Your task to perform on an android device: Show the shopping cart on walmart.com. Image 0: 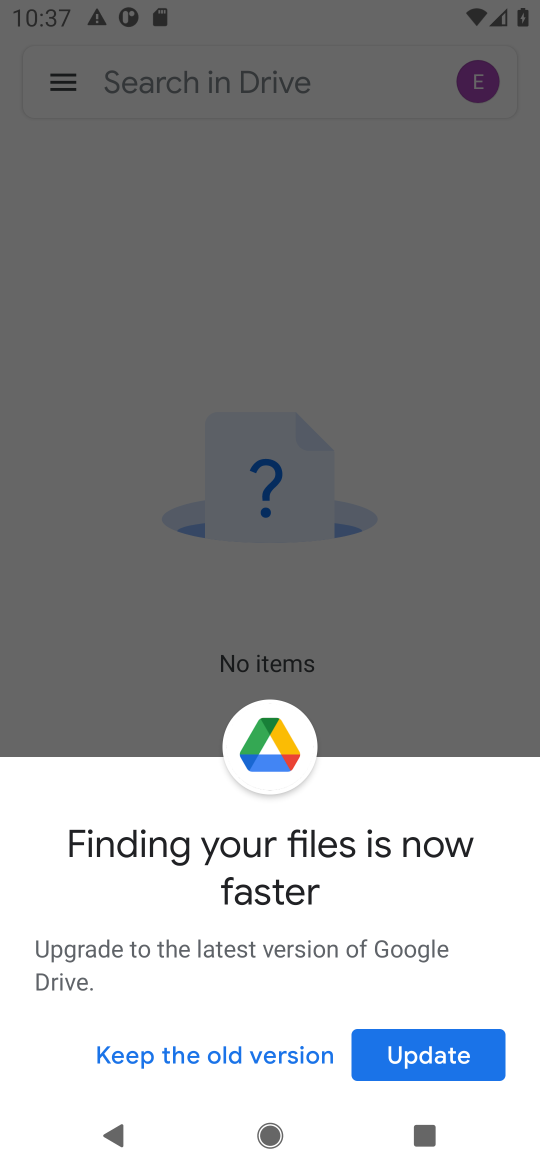
Step 0: press home button
Your task to perform on an android device: Show the shopping cart on walmart.com. Image 1: 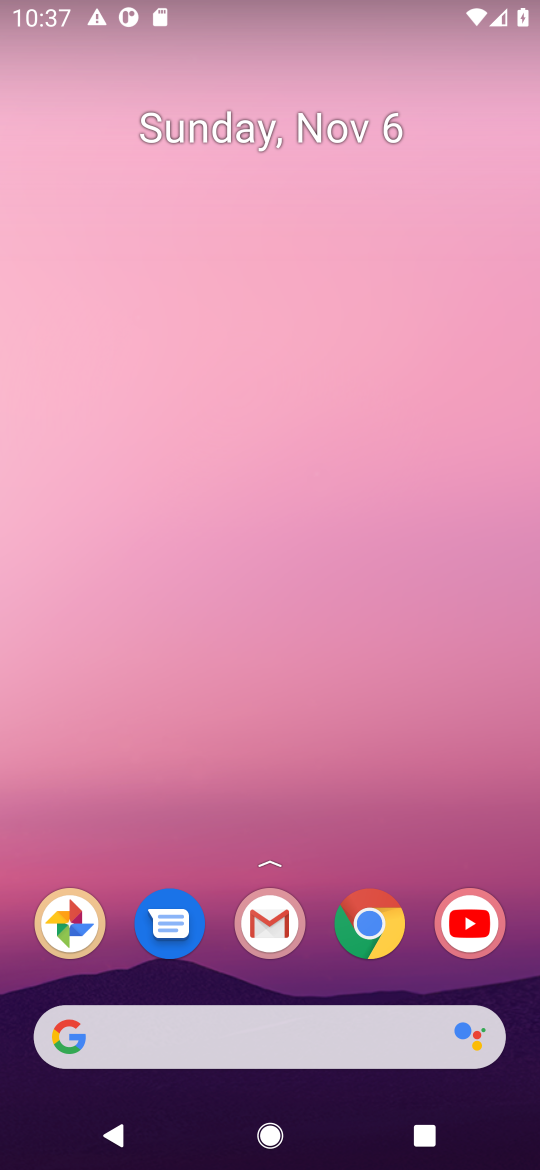
Step 1: click (355, 954)
Your task to perform on an android device: Show the shopping cart on walmart.com. Image 2: 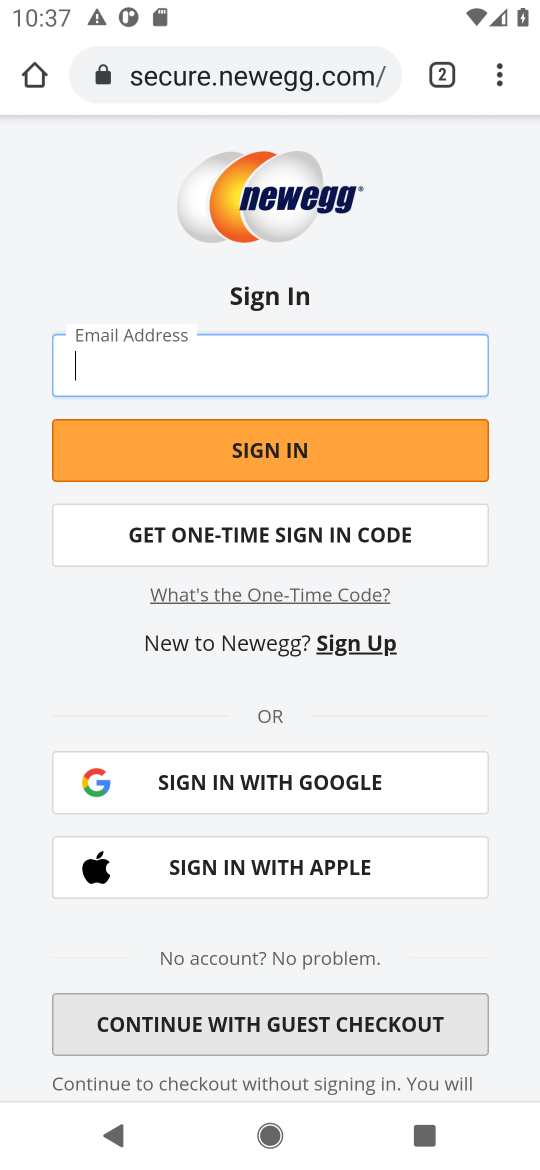
Step 2: click (213, 83)
Your task to perform on an android device: Show the shopping cart on walmart.com. Image 3: 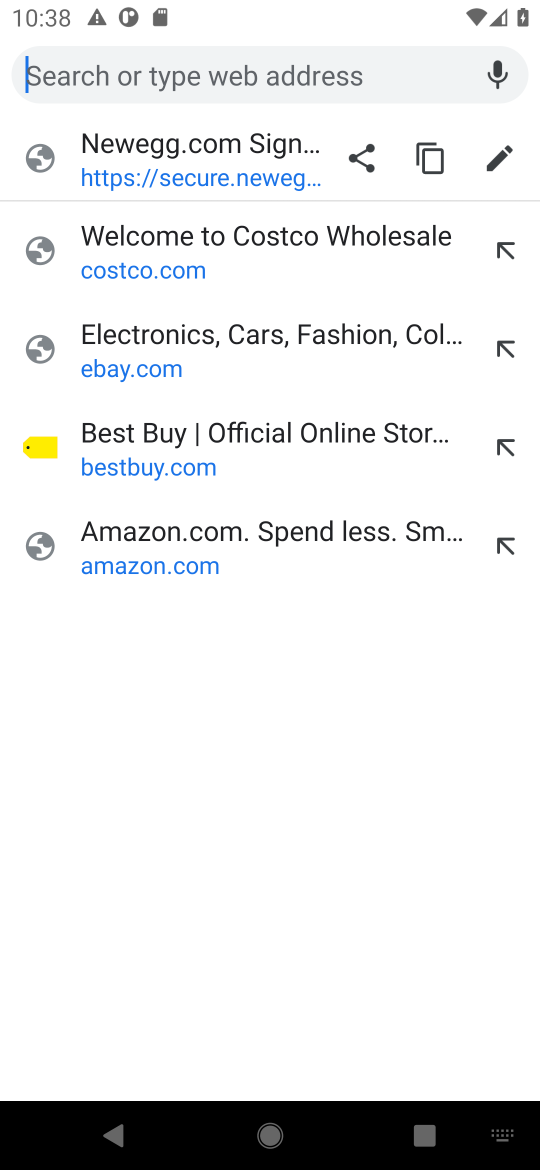
Step 3: type "walmart.com"
Your task to perform on an android device: Show the shopping cart on walmart.com. Image 4: 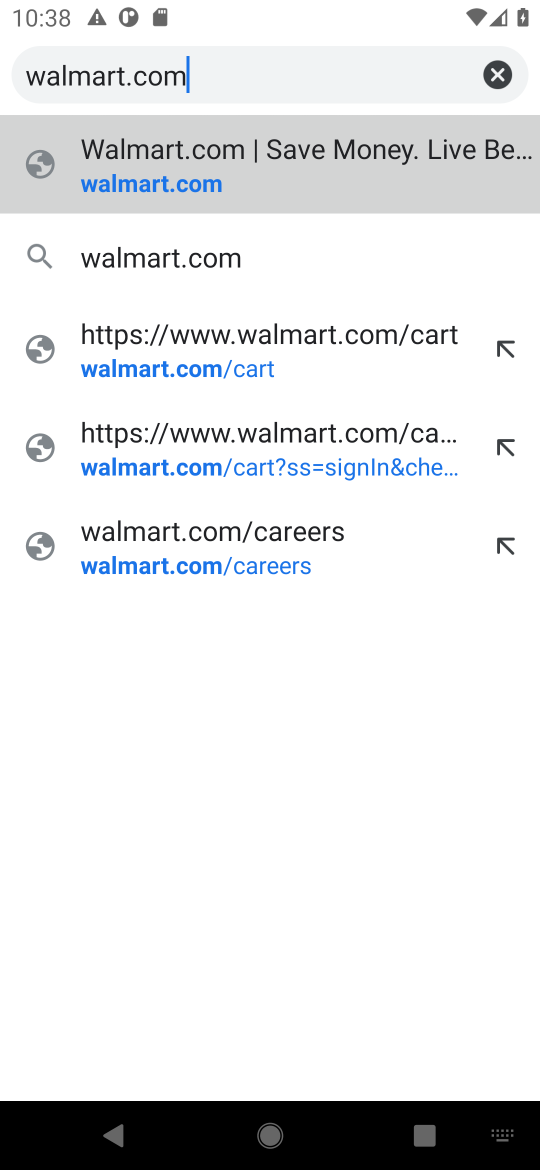
Step 4: click (151, 188)
Your task to perform on an android device: Show the shopping cart on walmart.com. Image 5: 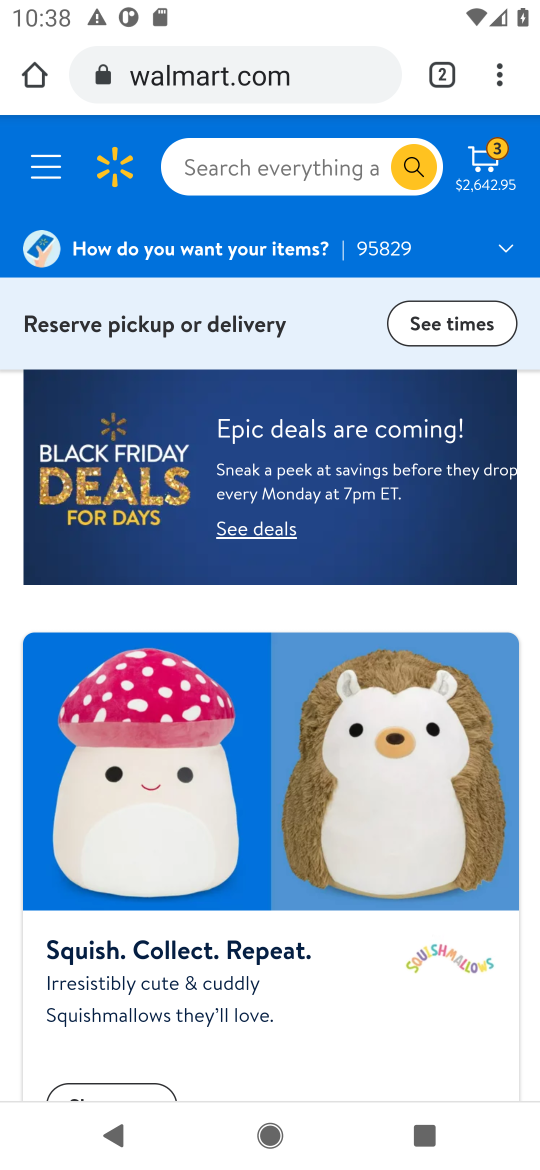
Step 5: click (483, 154)
Your task to perform on an android device: Show the shopping cart on walmart.com. Image 6: 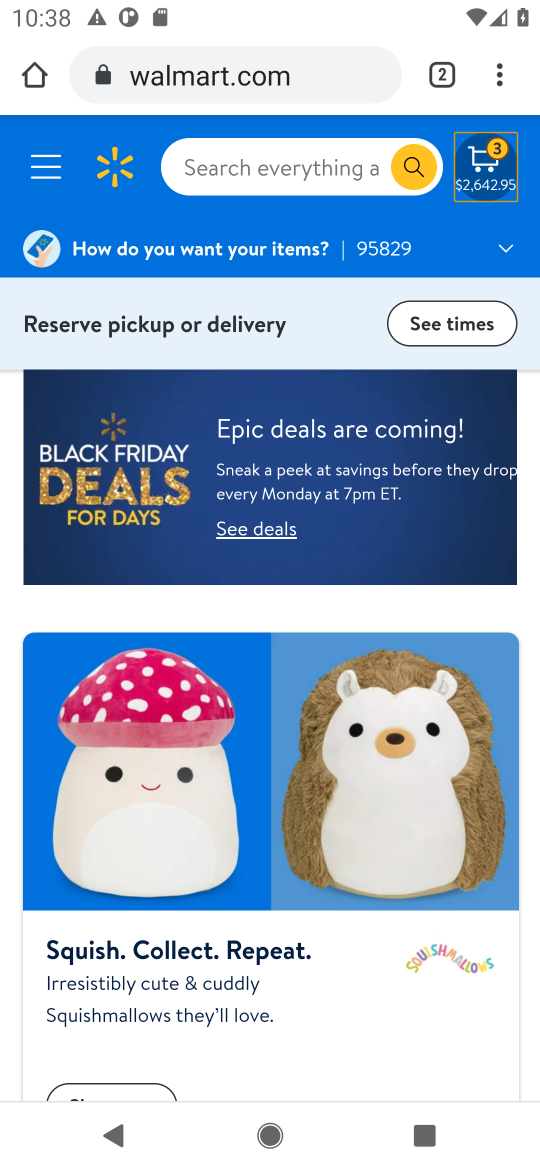
Step 6: click (481, 165)
Your task to perform on an android device: Show the shopping cart on walmart.com. Image 7: 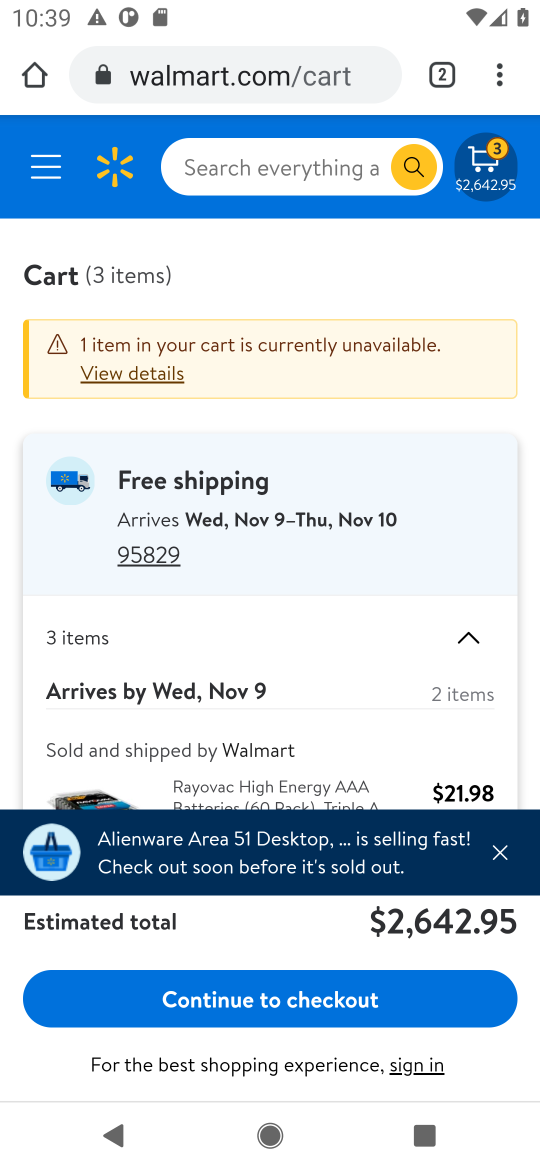
Step 7: task complete